Your task to perform on an android device: Open location settings Image 0: 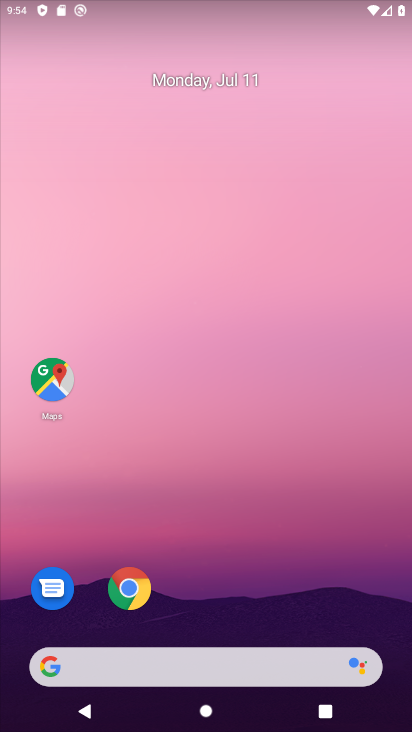
Step 0: drag from (173, 607) to (197, 32)
Your task to perform on an android device: Open location settings Image 1: 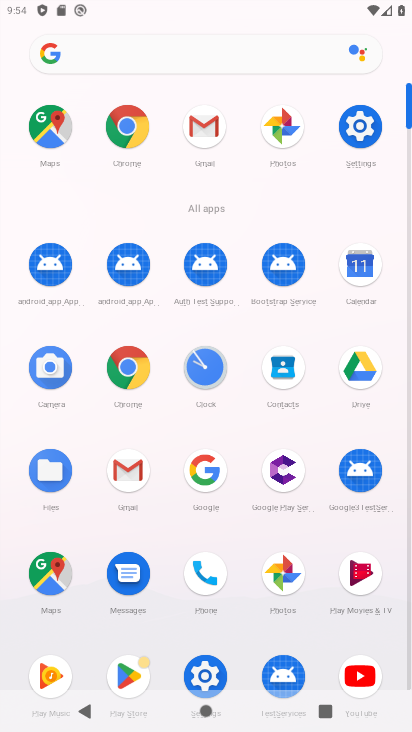
Step 1: click (206, 672)
Your task to perform on an android device: Open location settings Image 2: 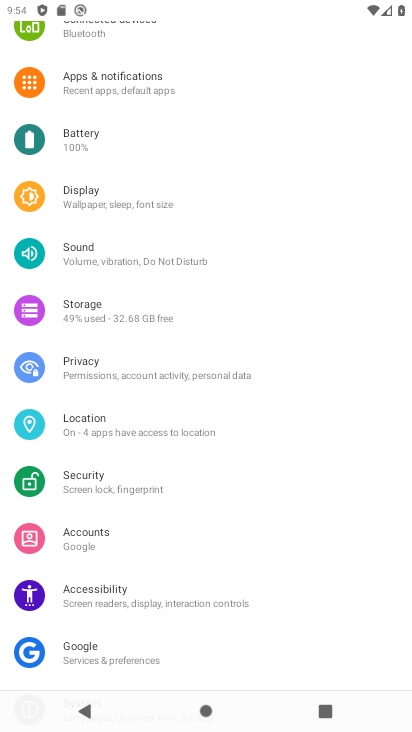
Step 2: click (128, 433)
Your task to perform on an android device: Open location settings Image 3: 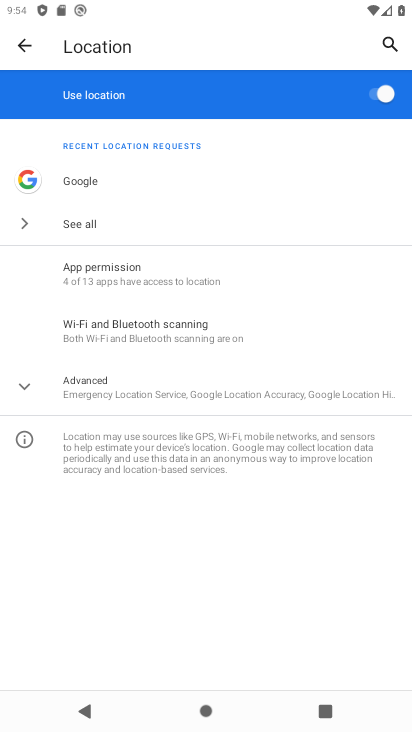
Step 3: task complete